Your task to perform on an android device: make emails show in primary in the gmail app Image 0: 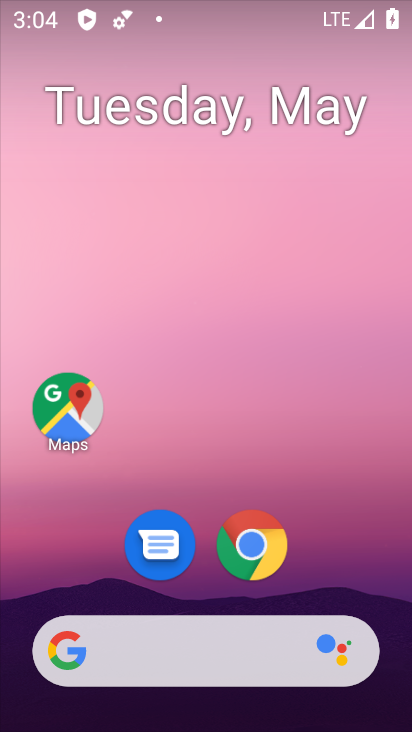
Step 0: drag from (345, 548) to (323, 181)
Your task to perform on an android device: make emails show in primary in the gmail app Image 1: 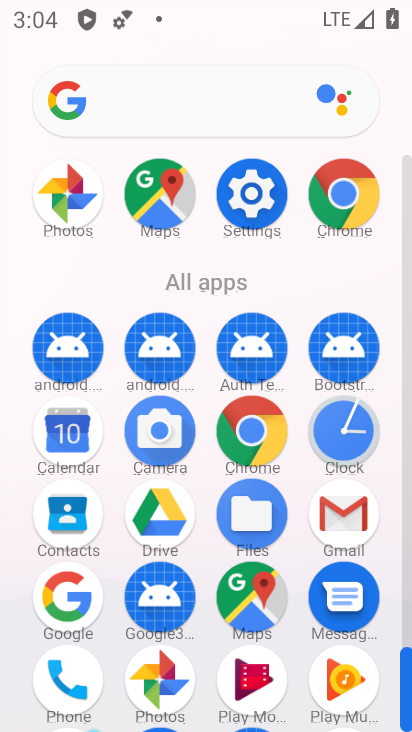
Step 1: click (341, 507)
Your task to perform on an android device: make emails show in primary in the gmail app Image 2: 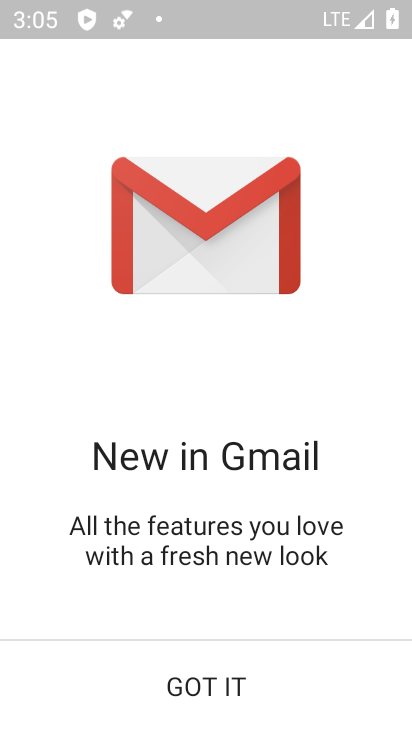
Step 2: click (178, 696)
Your task to perform on an android device: make emails show in primary in the gmail app Image 3: 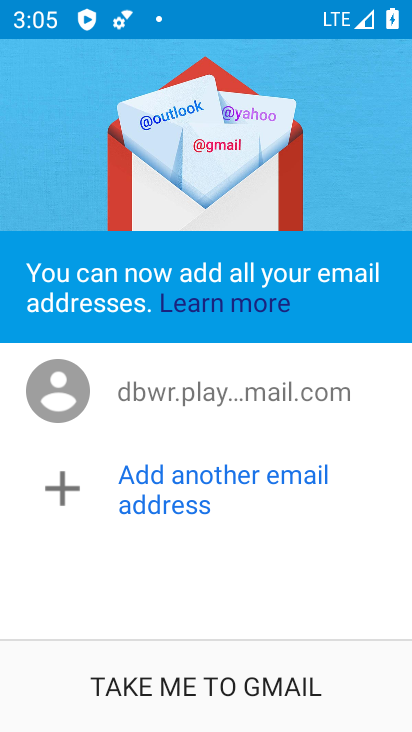
Step 3: click (172, 690)
Your task to perform on an android device: make emails show in primary in the gmail app Image 4: 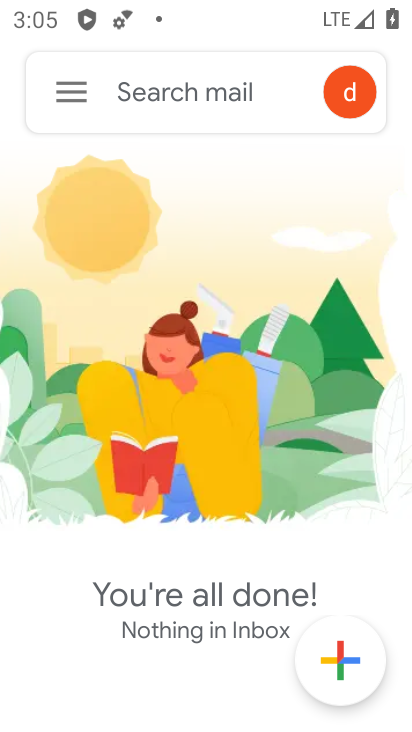
Step 4: click (76, 99)
Your task to perform on an android device: make emails show in primary in the gmail app Image 5: 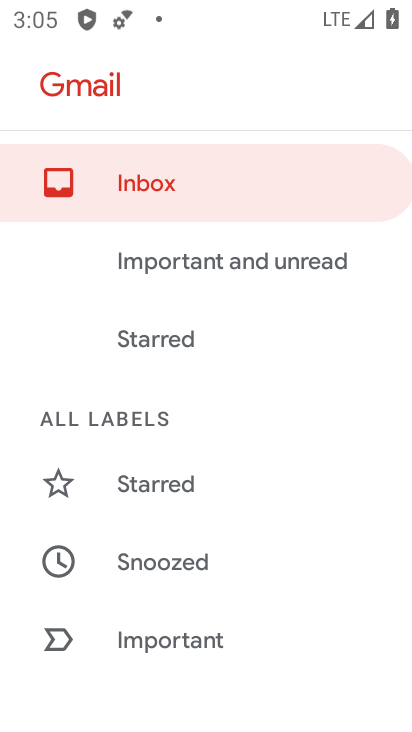
Step 5: drag from (239, 616) to (247, 251)
Your task to perform on an android device: make emails show in primary in the gmail app Image 6: 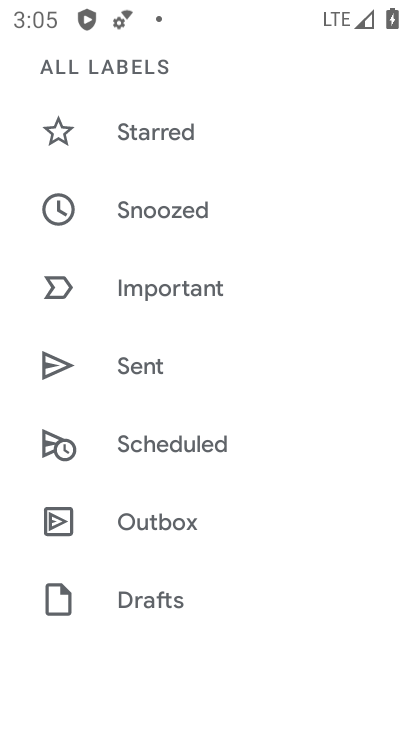
Step 6: drag from (219, 595) to (256, 311)
Your task to perform on an android device: make emails show in primary in the gmail app Image 7: 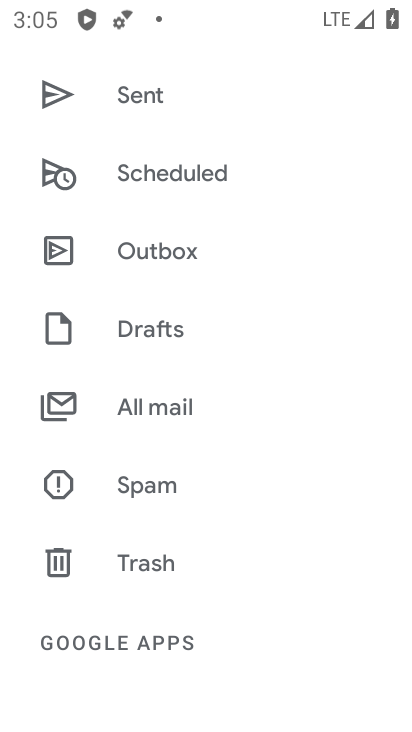
Step 7: drag from (215, 590) to (243, 327)
Your task to perform on an android device: make emails show in primary in the gmail app Image 8: 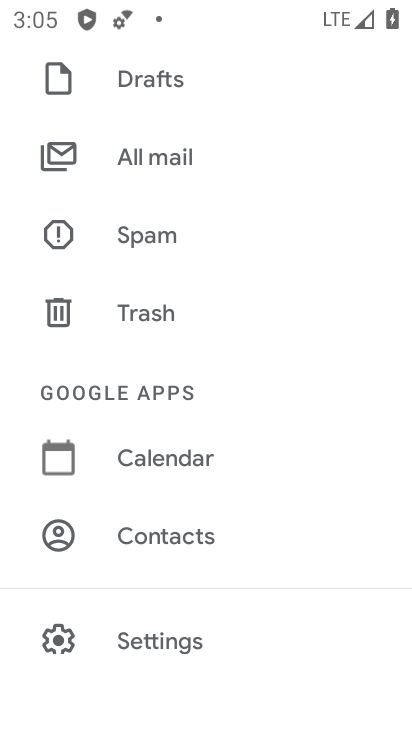
Step 8: click (165, 634)
Your task to perform on an android device: make emails show in primary in the gmail app Image 9: 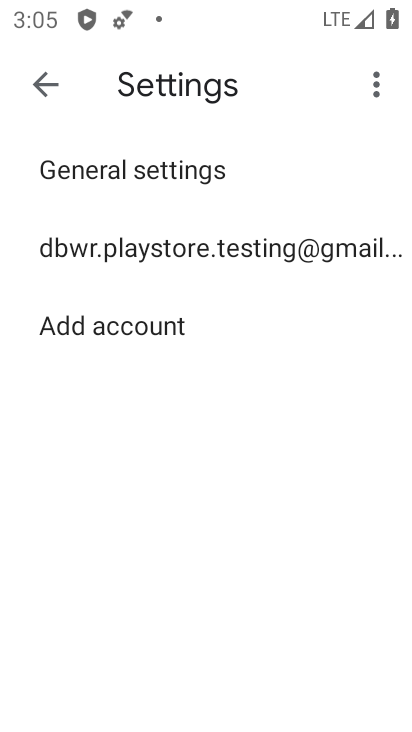
Step 9: click (181, 251)
Your task to perform on an android device: make emails show in primary in the gmail app Image 10: 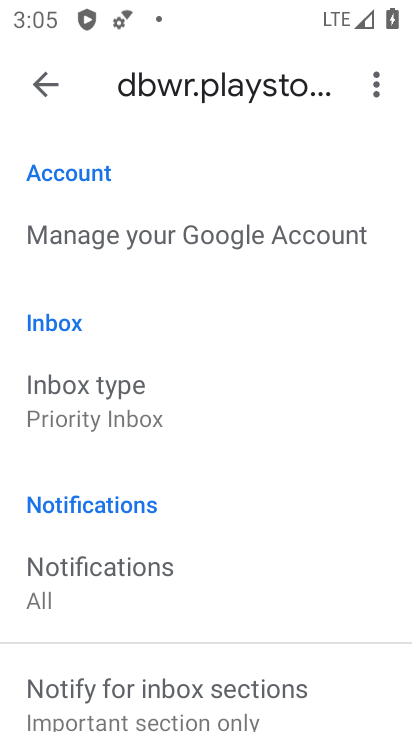
Step 10: drag from (215, 649) to (251, 299)
Your task to perform on an android device: make emails show in primary in the gmail app Image 11: 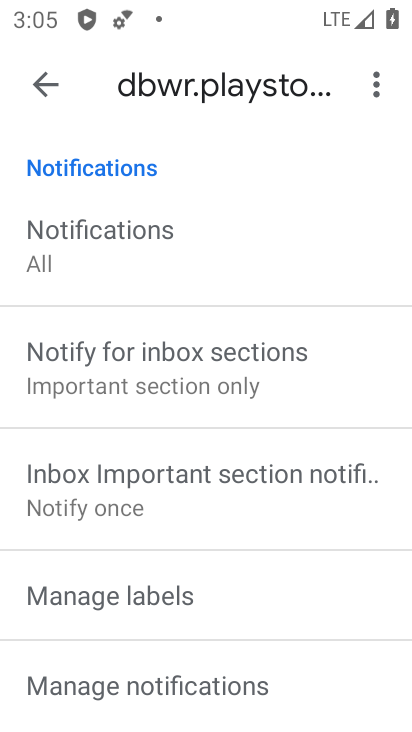
Step 11: drag from (274, 644) to (246, 693)
Your task to perform on an android device: make emails show in primary in the gmail app Image 12: 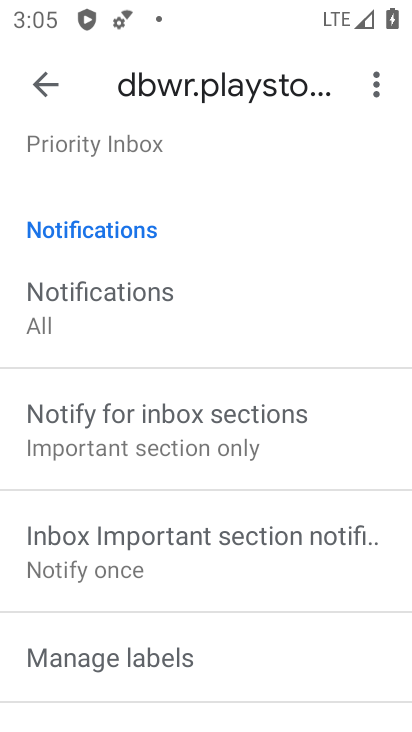
Step 12: click (113, 156)
Your task to perform on an android device: make emails show in primary in the gmail app Image 13: 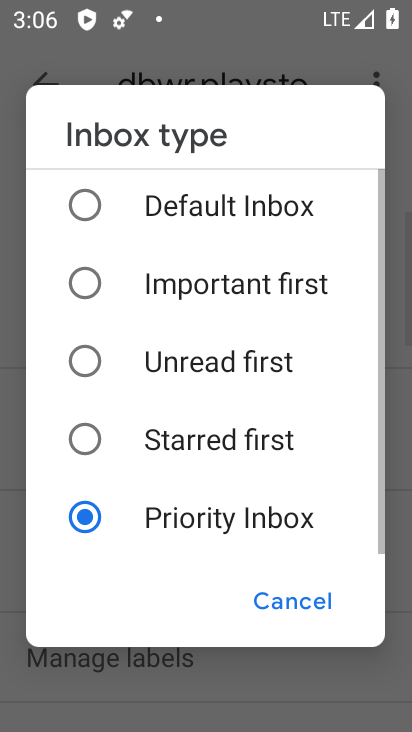
Step 13: click (217, 217)
Your task to perform on an android device: make emails show in primary in the gmail app Image 14: 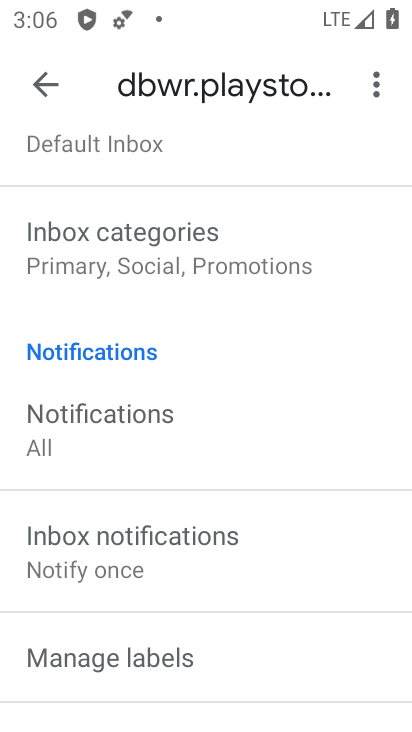
Step 14: task complete